Your task to perform on an android device: toggle translation in the chrome app Image 0: 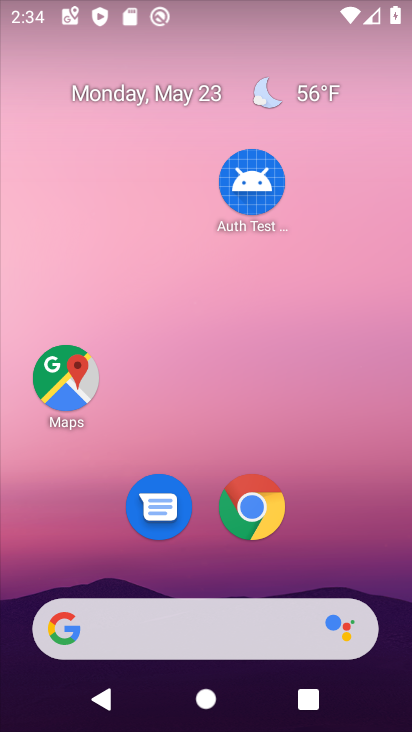
Step 0: drag from (288, 551) to (296, 0)
Your task to perform on an android device: toggle translation in the chrome app Image 1: 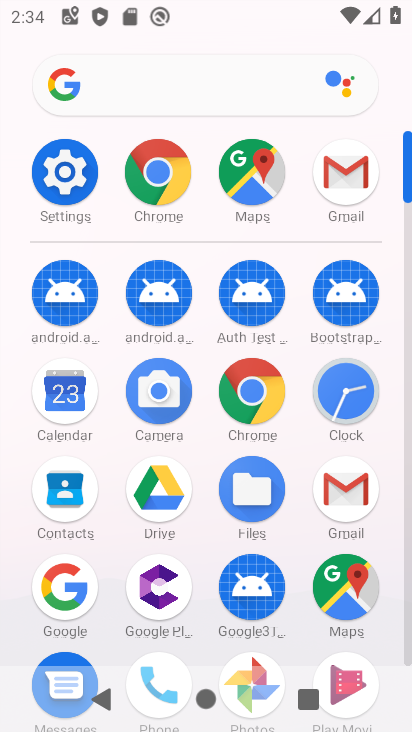
Step 1: click (157, 164)
Your task to perform on an android device: toggle translation in the chrome app Image 2: 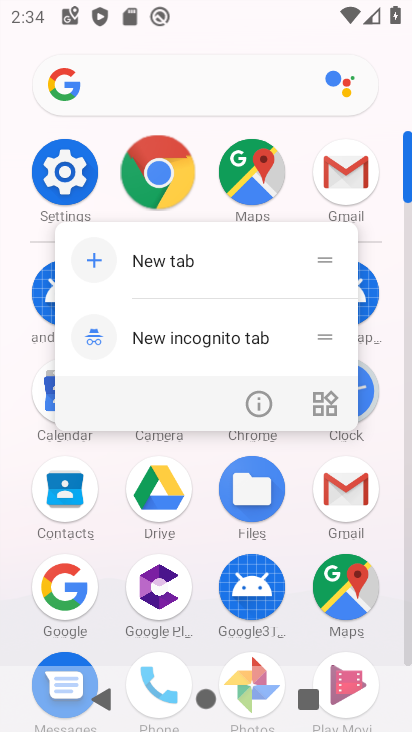
Step 2: click (157, 164)
Your task to perform on an android device: toggle translation in the chrome app Image 3: 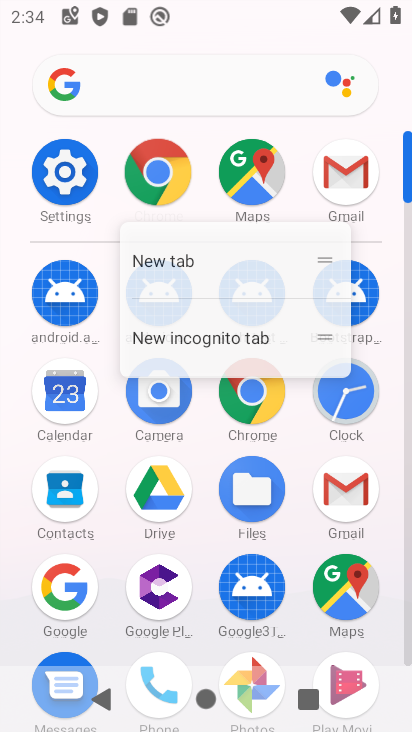
Step 3: click (160, 166)
Your task to perform on an android device: toggle translation in the chrome app Image 4: 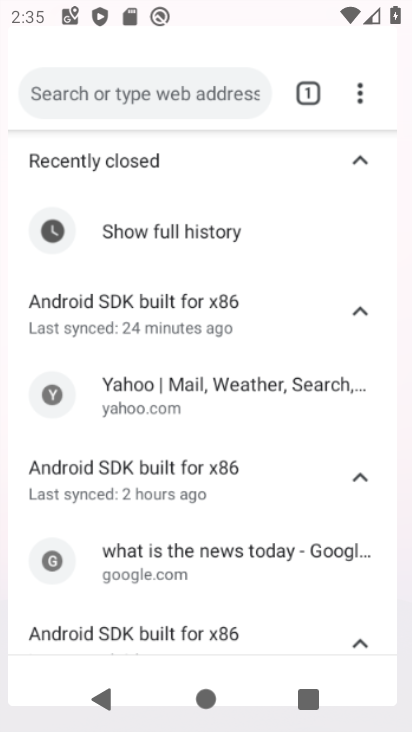
Step 4: click (161, 166)
Your task to perform on an android device: toggle translation in the chrome app Image 5: 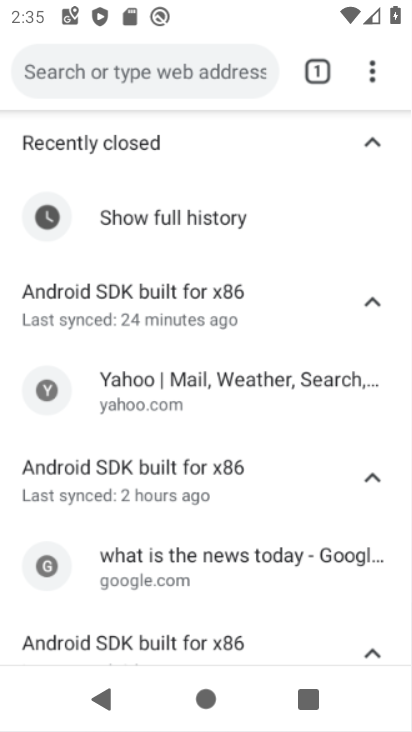
Step 5: click (161, 166)
Your task to perform on an android device: toggle translation in the chrome app Image 6: 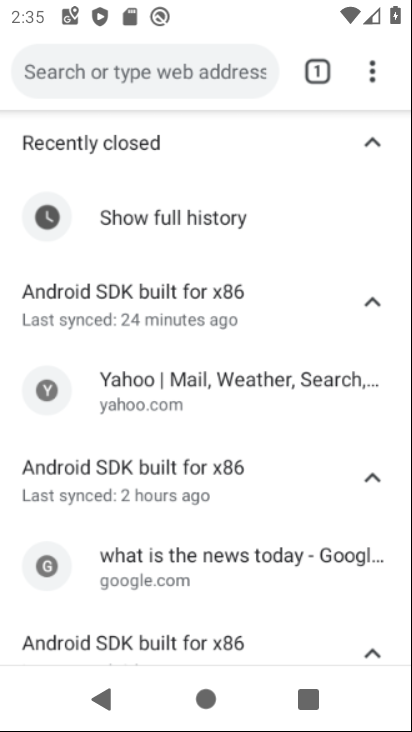
Step 6: click (161, 166)
Your task to perform on an android device: toggle translation in the chrome app Image 7: 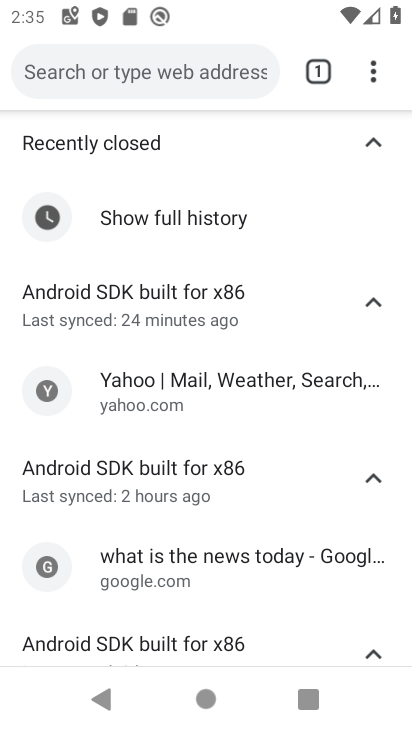
Step 7: drag from (372, 68) to (117, 510)
Your task to perform on an android device: toggle translation in the chrome app Image 8: 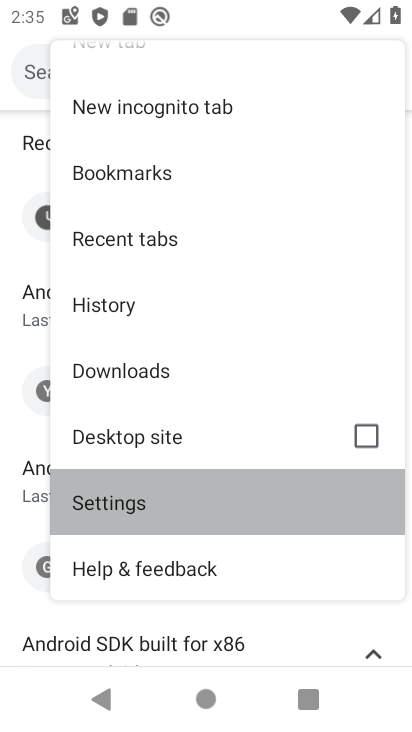
Step 8: click (117, 510)
Your task to perform on an android device: toggle translation in the chrome app Image 9: 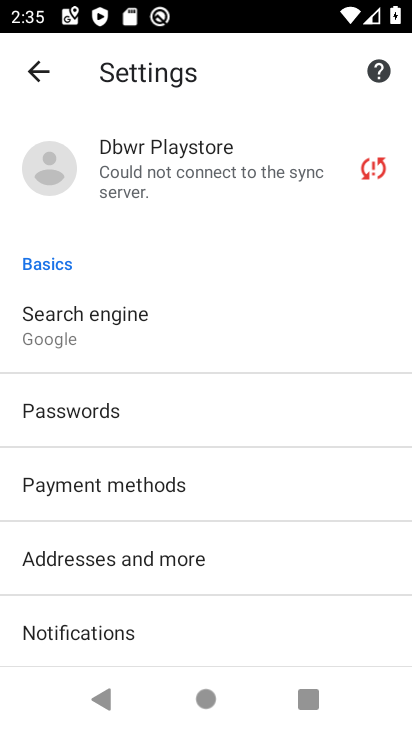
Step 9: drag from (146, 487) to (129, 192)
Your task to perform on an android device: toggle translation in the chrome app Image 10: 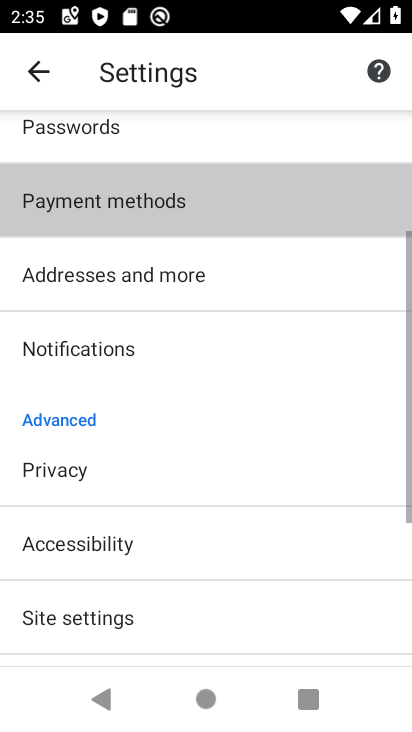
Step 10: drag from (183, 455) to (171, 105)
Your task to perform on an android device: toggle translation in the chrome app Image 11: 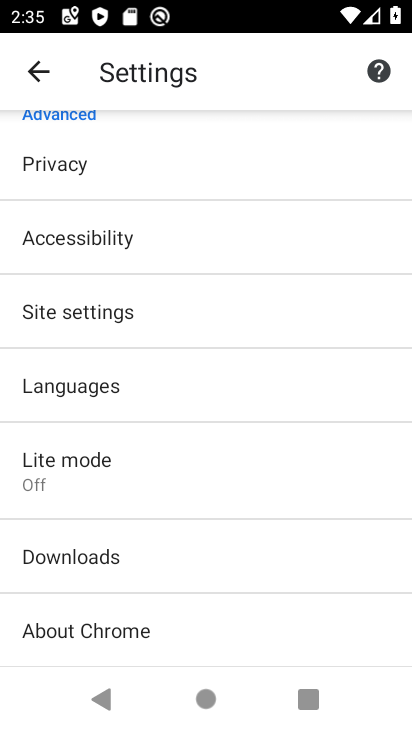
Step 11: click (76, 310)
Your task to perform on an android device: toggle translation in the chrome app Image 12: 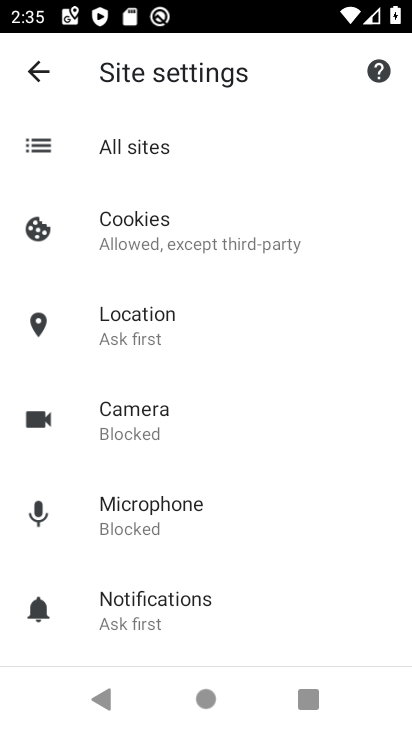
Step 12: click (32, 82)
Your task to perform on an android device: toggle translation in the chrome app Image 13: 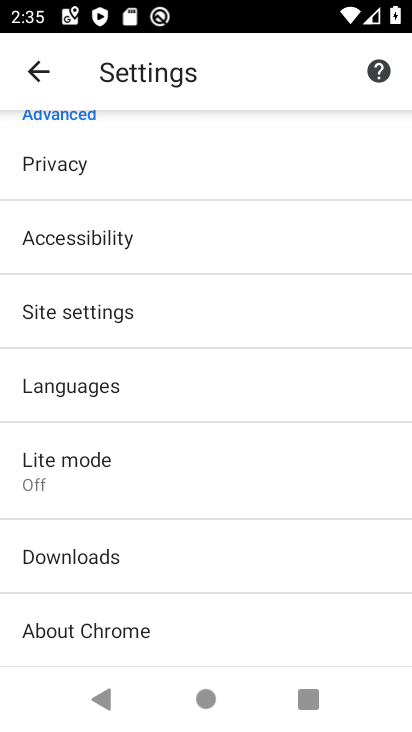
Step 13: click (56, 384)
Your task to perform on an android device: toggle translation in the chrome app Image 14: 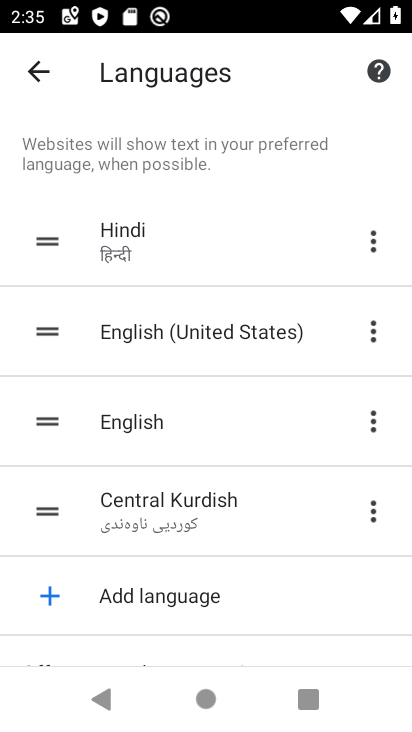
Step 14: drag from (175, 509) to (123, 137)
Your task to perform on an android device: toggle translation in the chrome app Image 15: 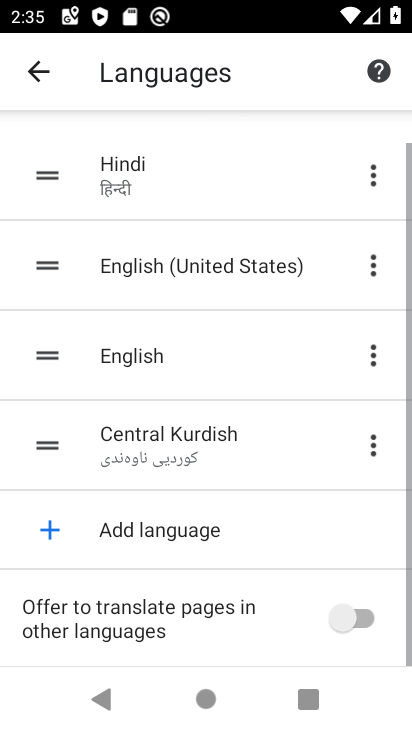
Step 15: drag from (208, 427) to (208, 53)
Your task to perform on an android device: toggle translation in the chrome app Image 16: 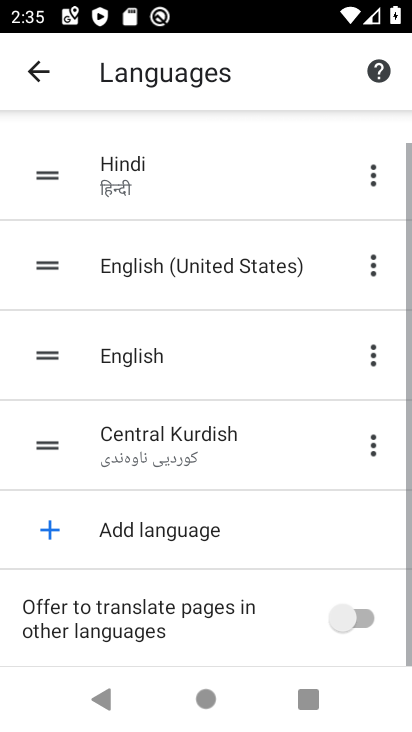
Step 16: drag from (229, 443) to (227, 141)
Your task to perform on an android device: toggle translation in the chrome app Image 17: 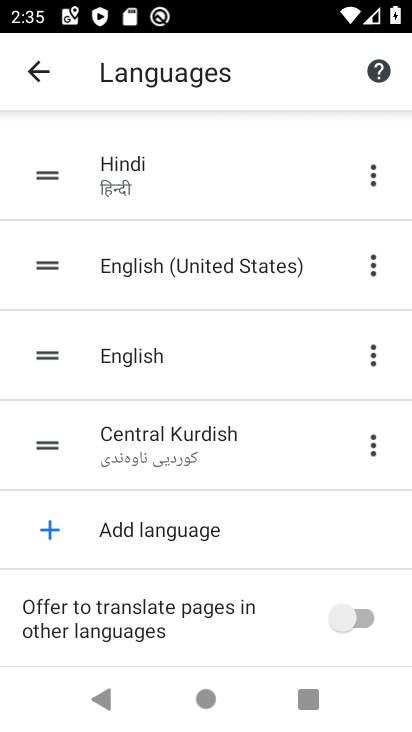
Step 17: click (348, 614)
Your task to perform on an android device: toggle translation in the chrome app Image 18: 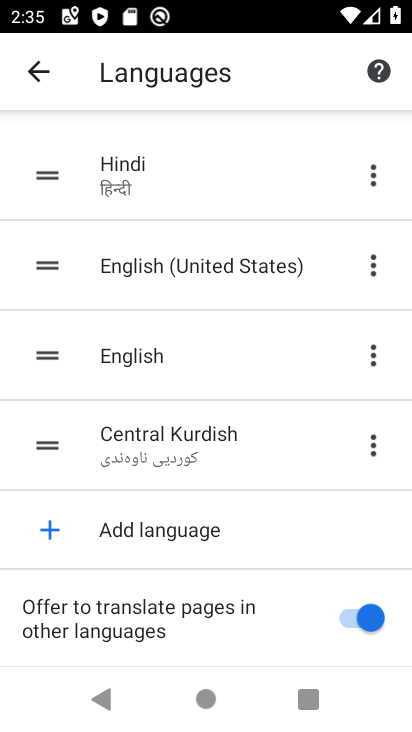
Step 18: task complete